Your task to perform on an android device: open a bookmark in the chrome app Image 0: 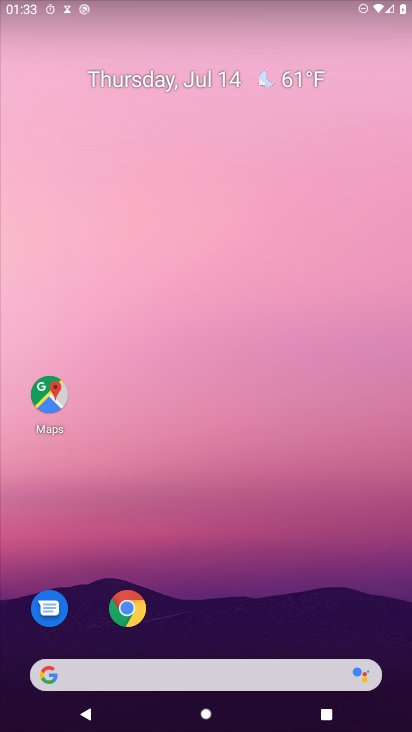
Step 0: press home button
Your task to perform on an android device: open a bookmark in the chrome app Image 1: 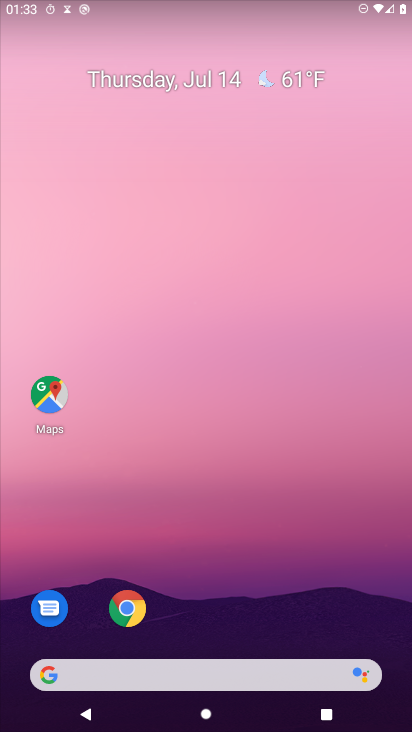
Step 1: drag from (259, 548) to (345, 6)
Your task to perform on an android device: open a bookmark in the chrome app Image 2: 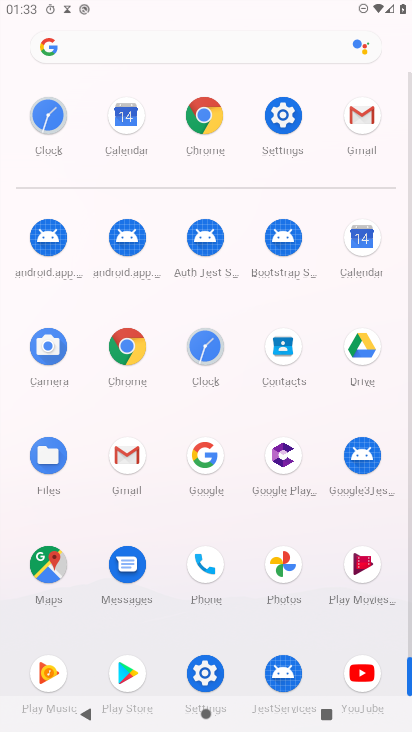
Step 2: click (206, 109)
Your task to perform on an android device: open a bookmark in the chrome app Image 3: 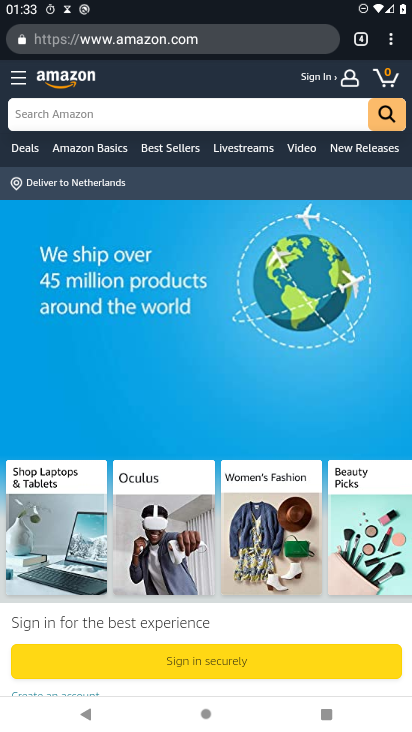
Step 3: task complete